Your task to perform on an android device: Open calendar and show me the fourth week of next month Image 0: 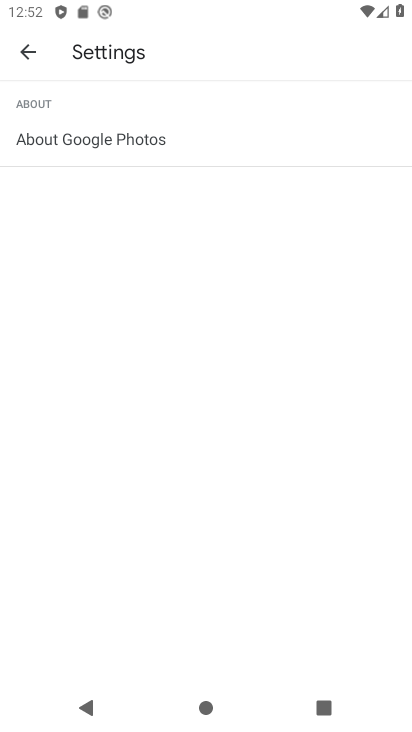
Step 0: press home button
Your task to perform on an android device: Open calendar and show me the fourth week of next month Image 1: 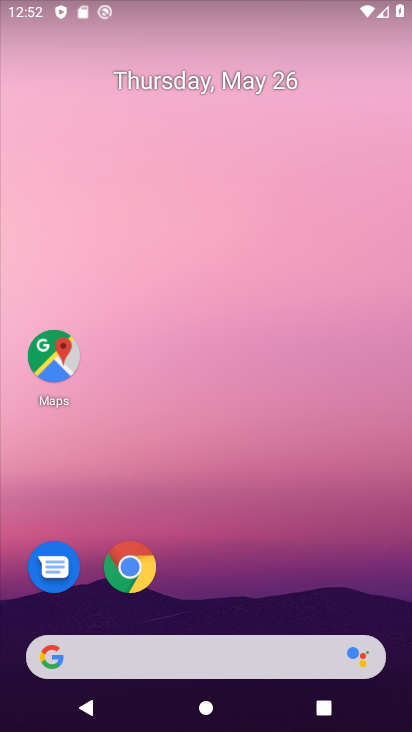
Step 1: click (229, 111)
Your task to perform on an android device: Open calendar and show me the fourth week of next month Image 2: 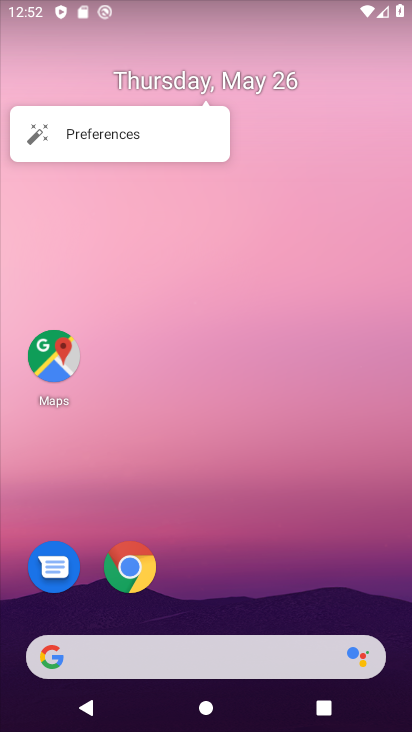
Step 2: drag from (230, 566) to (247, 200)
Your task to perform on an android device: Open calendar and show me the fourth week of next month Image 3: 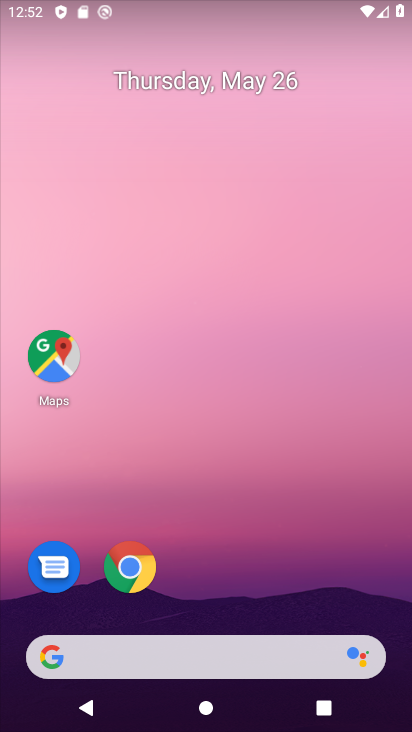
Step 3: drag from (258, 593) to (318, 82)
Your task to perform on an android device: Open calendar and show me the fourth week of next month Image 4: 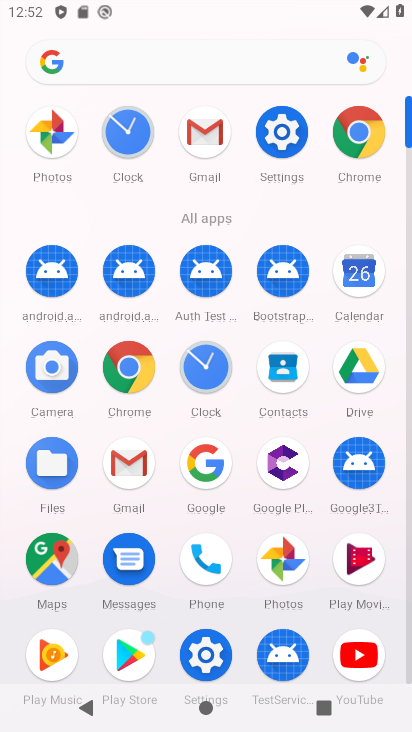
Step 4: click (353, 273)
Your task to perform on an android device: Open calendar and show me the fourth week of next month Image 5: 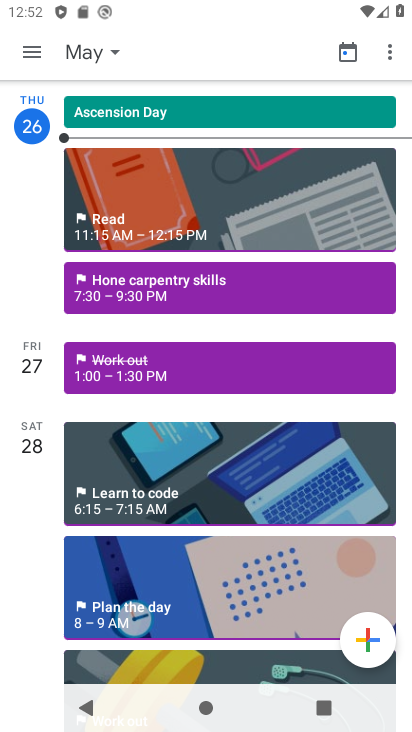
Step 5: click (109, 55)
Your task to perform on an android device: Open calendar and show me the fourth week of next month Image 6: 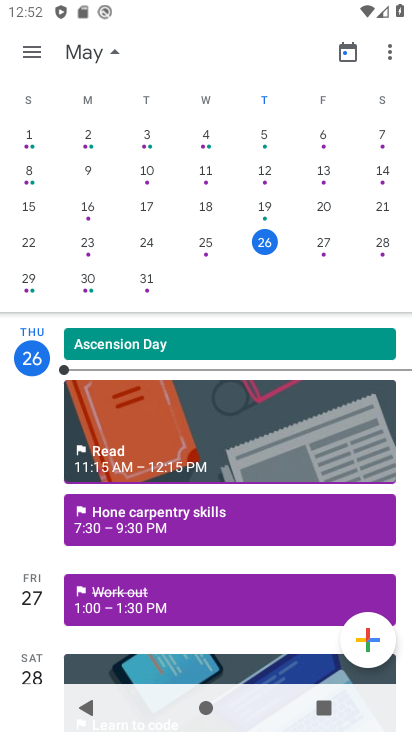
Step 6: drag from (374, 258) to (30, 232)
Your task to perform on an android device: Open calendar and show me the fourth week of next month Image 7: 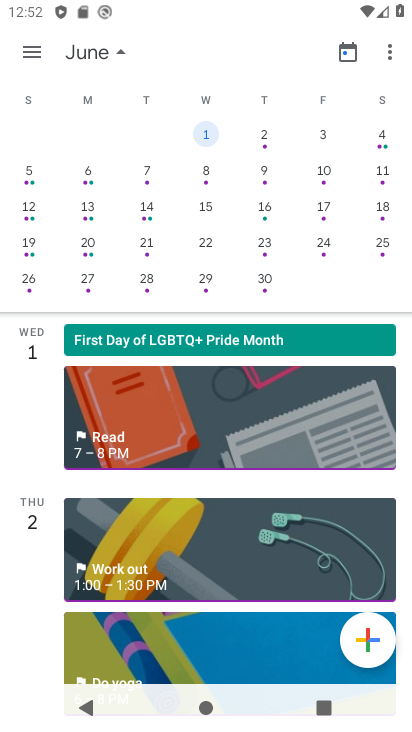
Step 7: click (210, 241)
Your task to perform on an android device: Open calendar and show me the fourth week of next month Image 8: 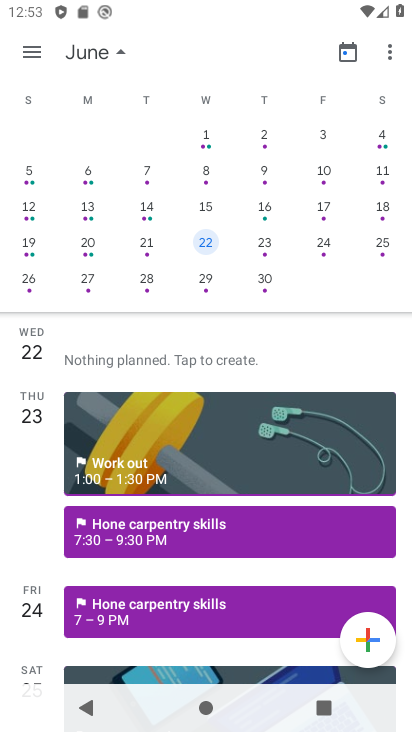
Step 8: task complete